Your task to perform on an android device: turn on bluetooth scan Image 0: 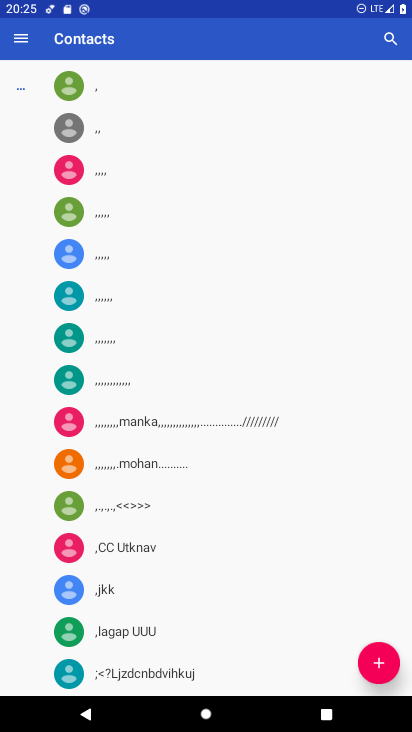
Step 0: press home button
Your task to perform on an android device: turn on bluetooth scan Image 1: 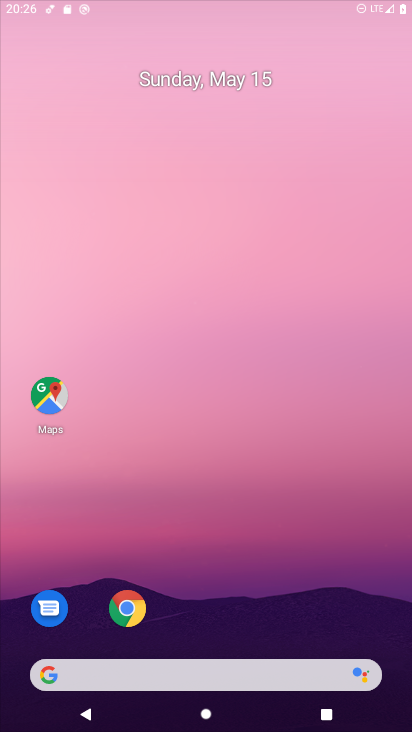
Step 1: drag from (229, 599) to (288, 53)
Your task to perform on an android device: turn on bluetooth scan Image 2: 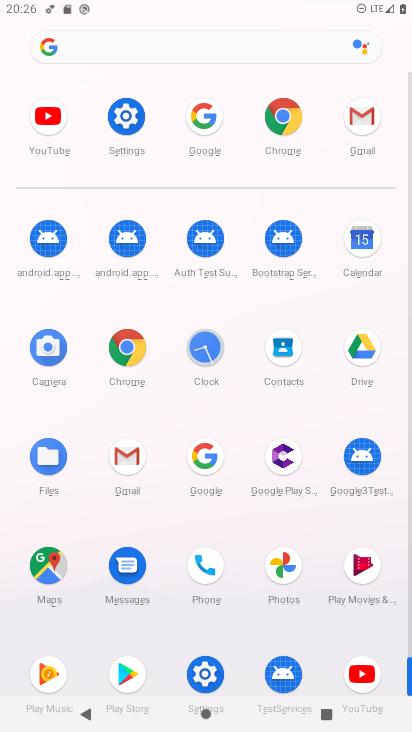
Step 2: click (124, 120)
Your task to perform on an android device: turn on bluetooth scan Image 3: 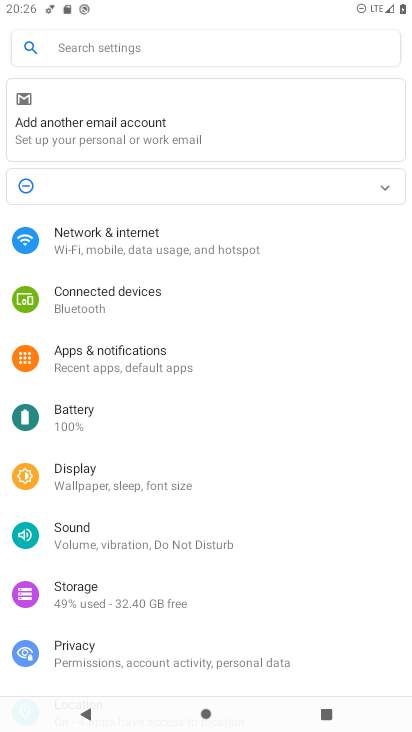
Step 3: drag from (172, 633) to (186, 195)
Your task to perform on an android device: turn on bluetooth scan Image 4: 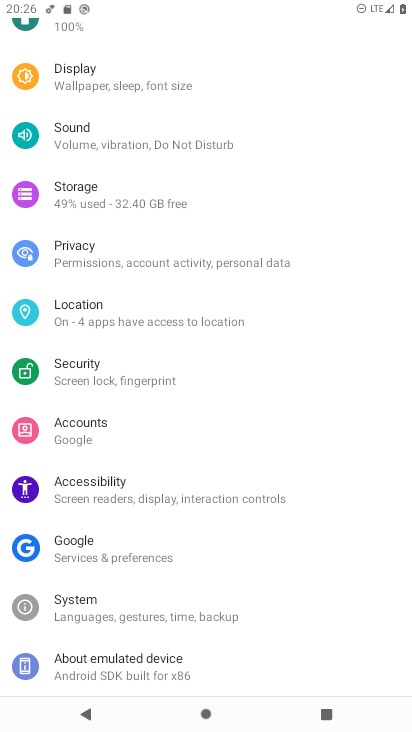
Step 4: click (95, 305)
Your task to perform on an android device: turn on bluetooth scan Image 5: 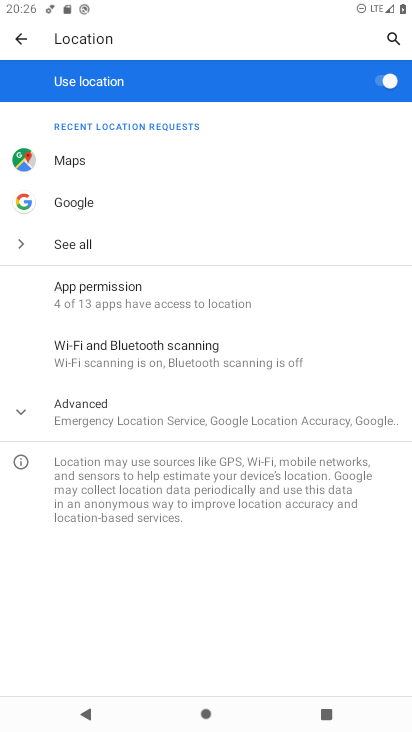
Step 5: click (115, 346)
Your task to perform on an android device: turn on bluetooth scan Image 6: 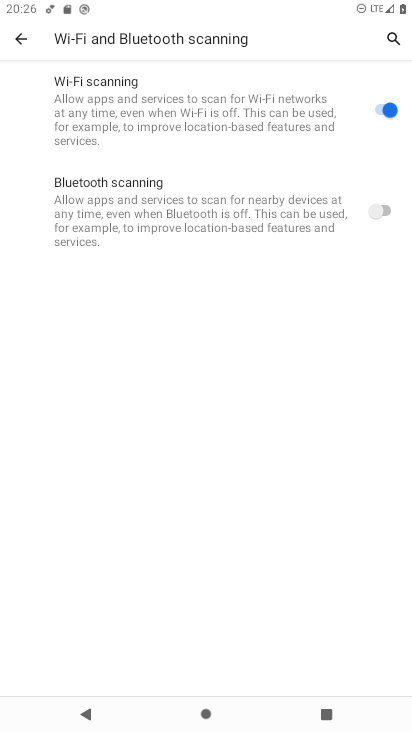
Step 6: click (374, 212)
Your task to perform on an android device: turn on bluetooth scan Image 7: 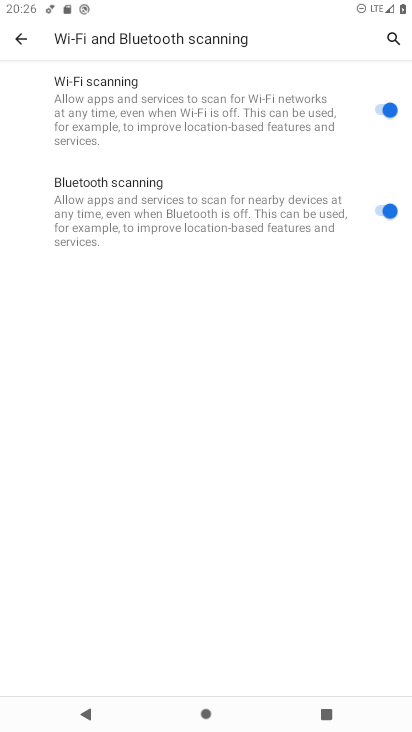
Step 7: task complete